Your task to perform on an android device: set default search engine in the chrome app Image 0: 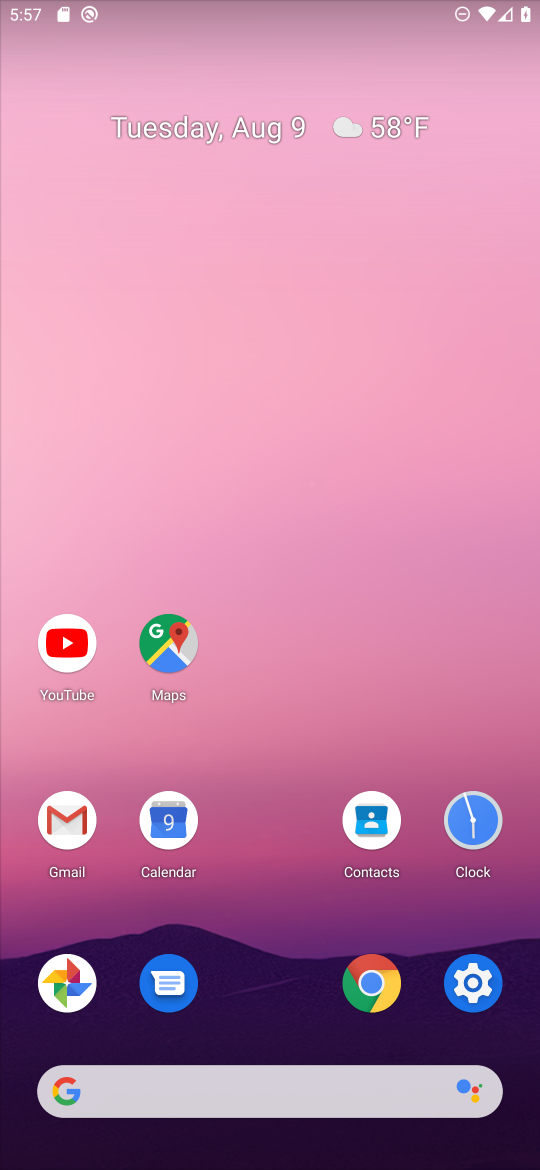
Step 0: press home button
Your task to perform on an android device: set default search engine in the chrome app Image 1: 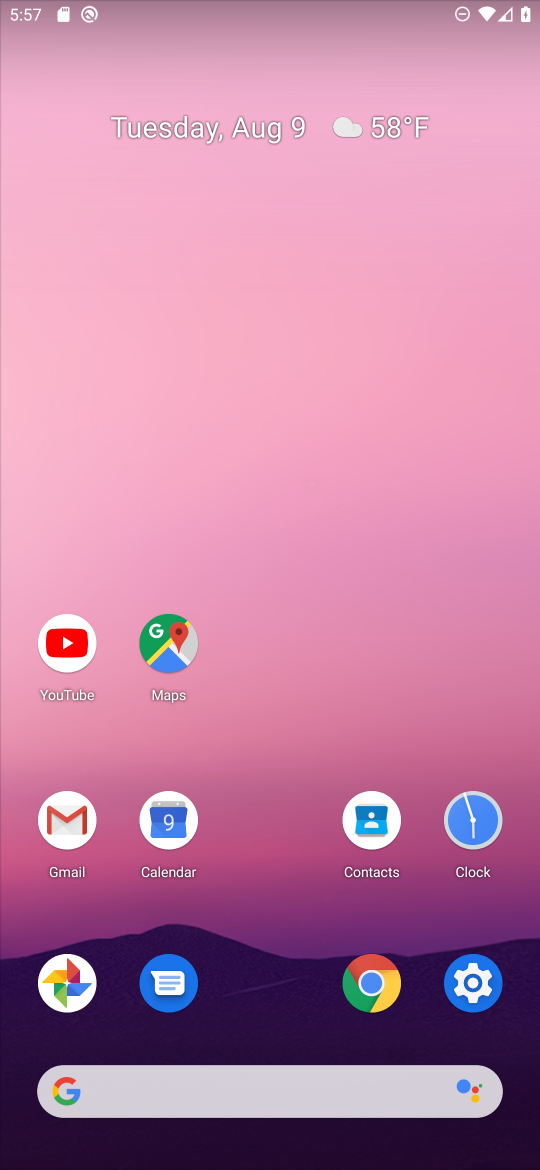
Step 1: click (372, 979)
Your task to perform on an android device: set default search engine in the chrome app Image 2: 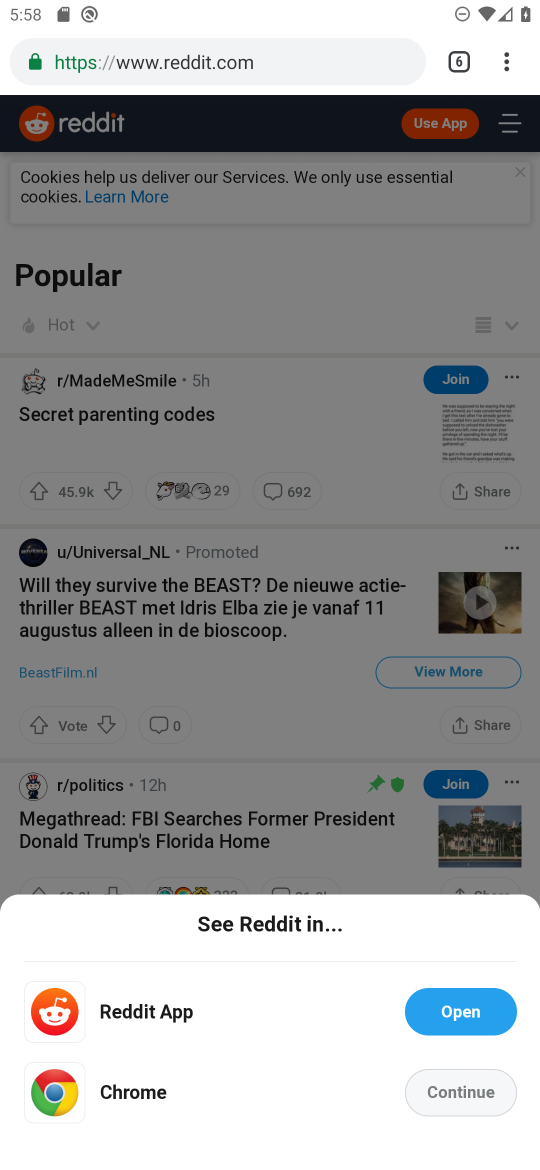
Step 2: click (505, 59)
Your task to perform on an android device: set default search engine in the chrome app Image 3: 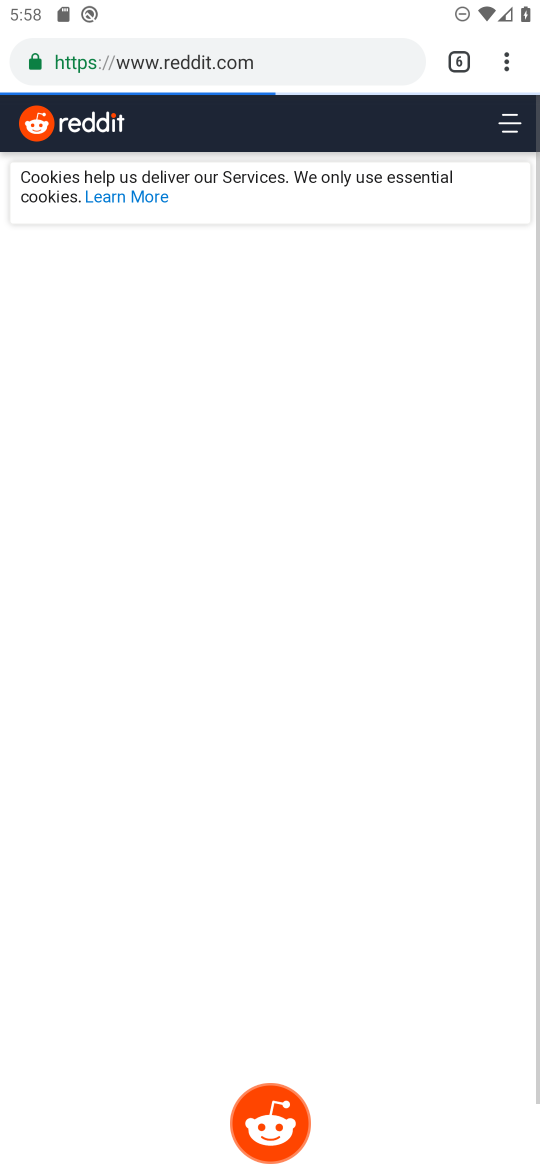
Step 3: click (464, 1083)
Your task to perform on an android device: set default search engine in the chrome app Image 4: 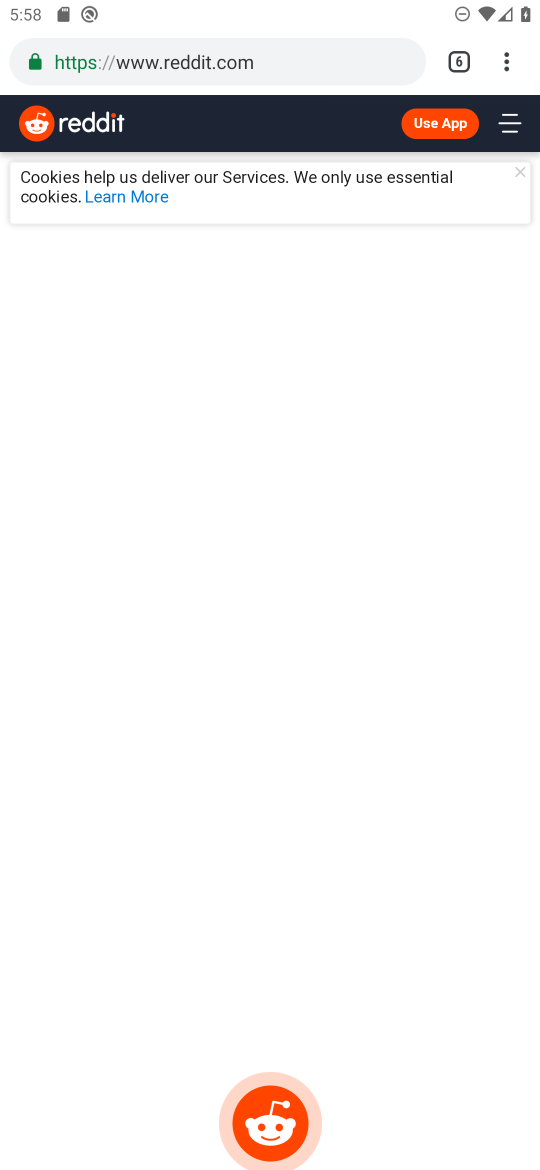
Step 4: click (494, 53)
Your task to perform on an android device: set default search engine in the chrome app Image 5: 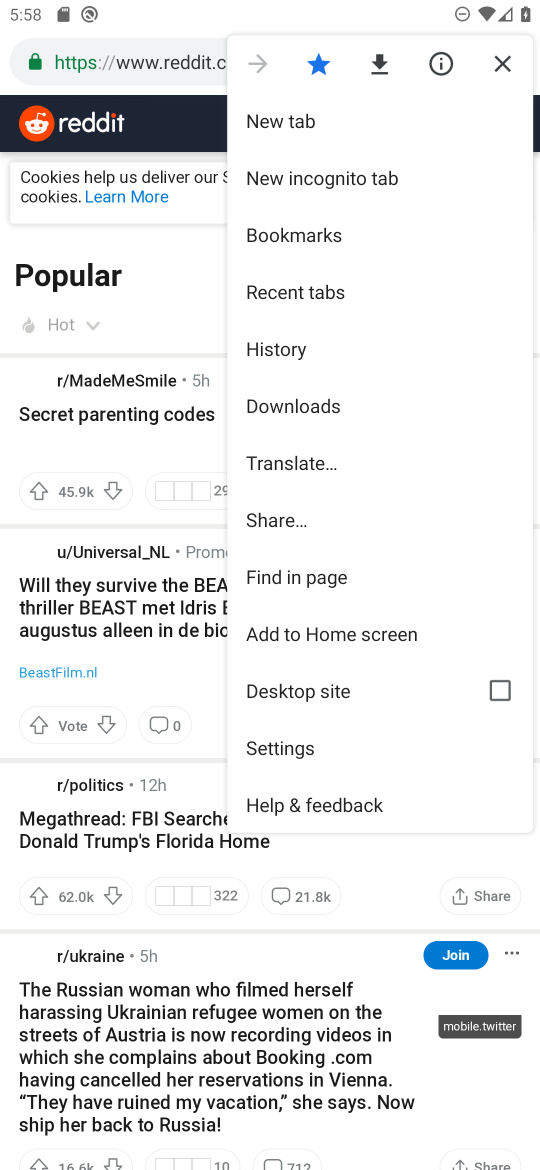
Step 5: click (281, 746)
Your task to perform on an android device: set default search engine in the chrome app Image 6: 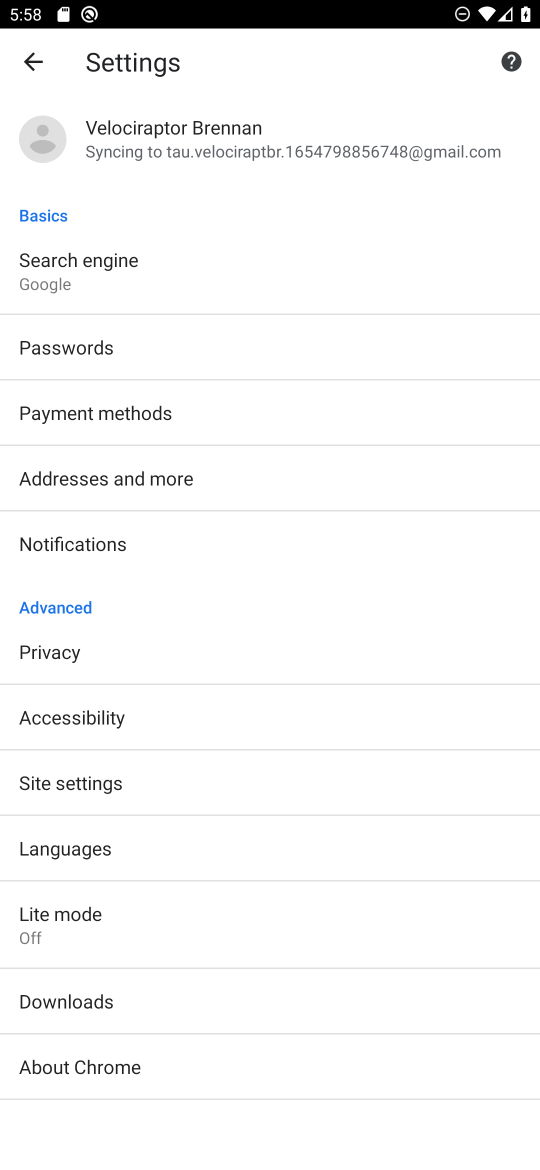
Step 6: click (86, 257)
Your task to perform on an android device: set default search engine in the chrome app Image 7: 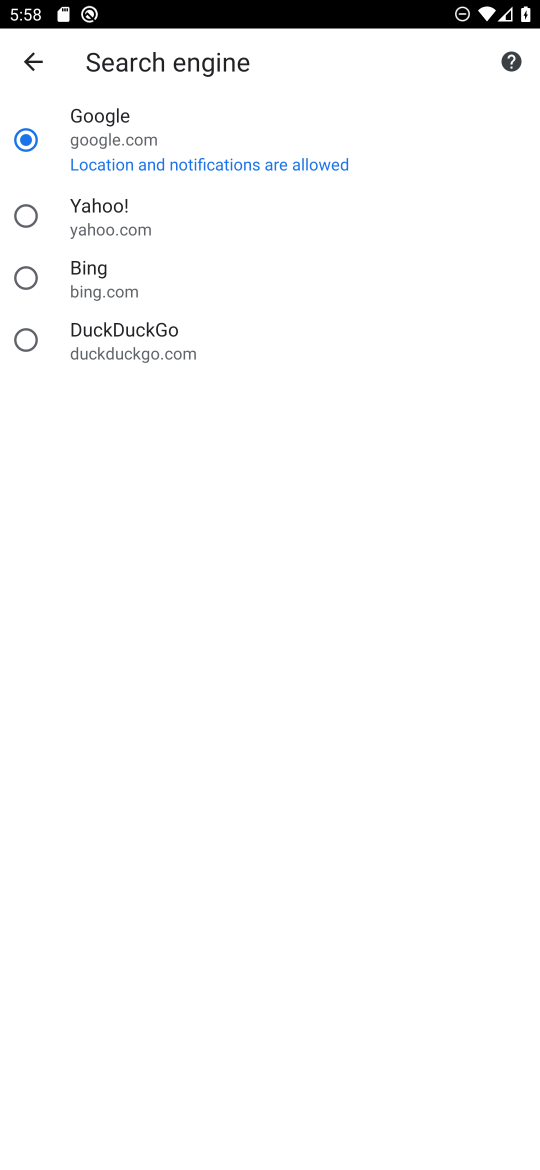
Step 7: task complete